Your task to perform on an android device: turn off improve location accuracy Image 0: 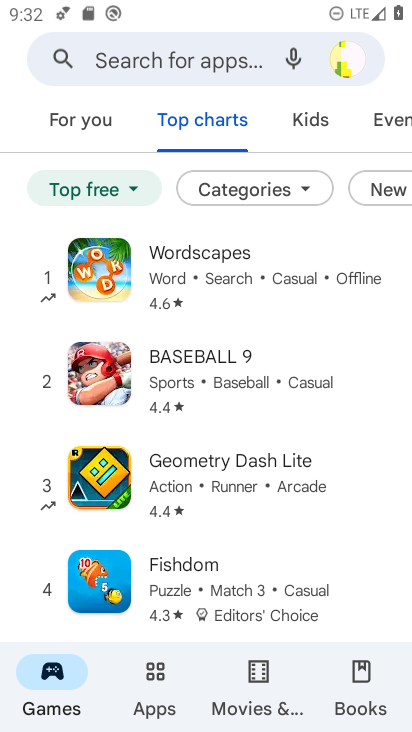
Step 0: press home button
Your task to perform on an android device: turn off improve location accuracy Image 1: 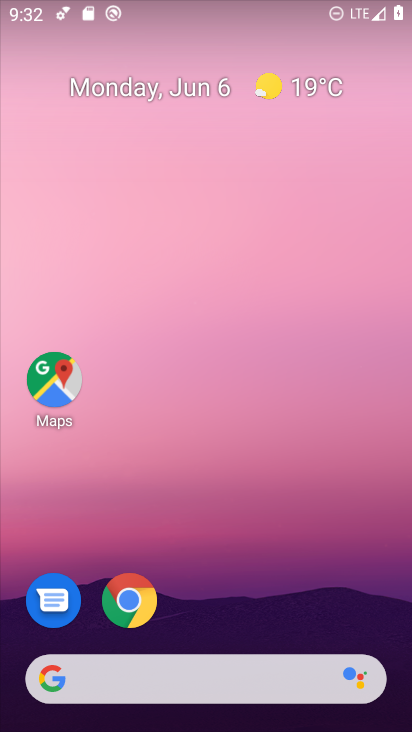
Step 1: drag from (244, 547) to (267, 47)
Your task to perform on an android device: turn off improve location accuracy Image 2: 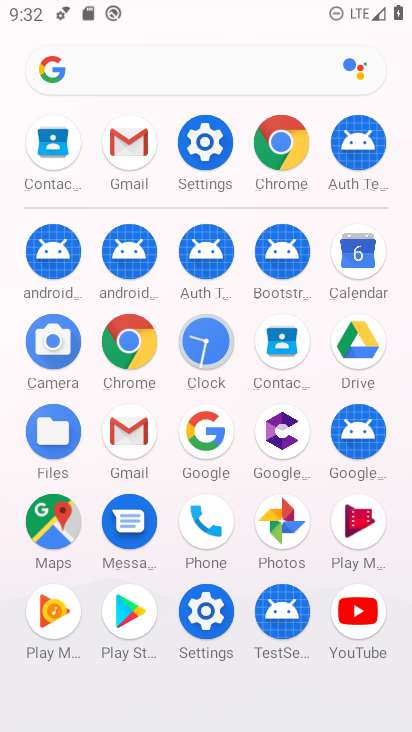
Step 2: click (213, 151)
Your task to perform on an android device: turn off improve location accuracy Image 3: 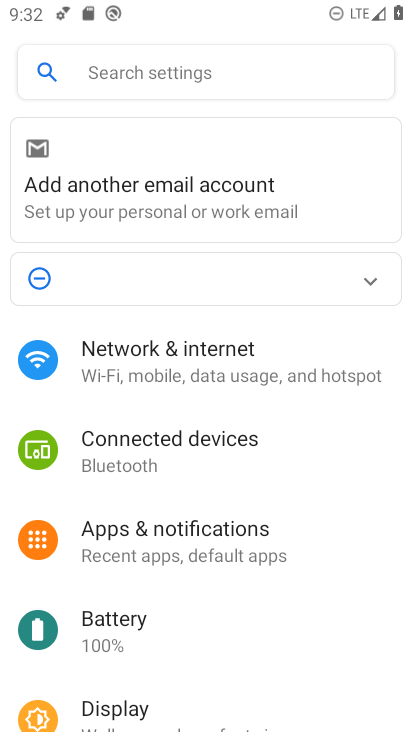
Step 3: drag from (238, 551) to (250, 50)
Your task to perform on an android device: turn off improve location accuracy Image 4: 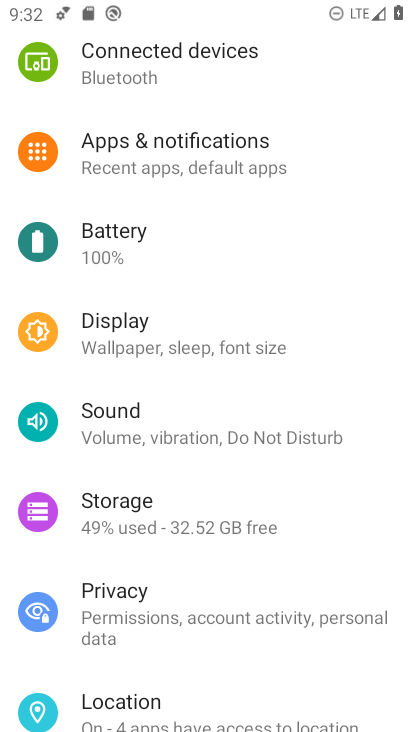
Step 4: click (239, 702)
Your task to perform on an android device: turn off improve location accuracy Image 5: 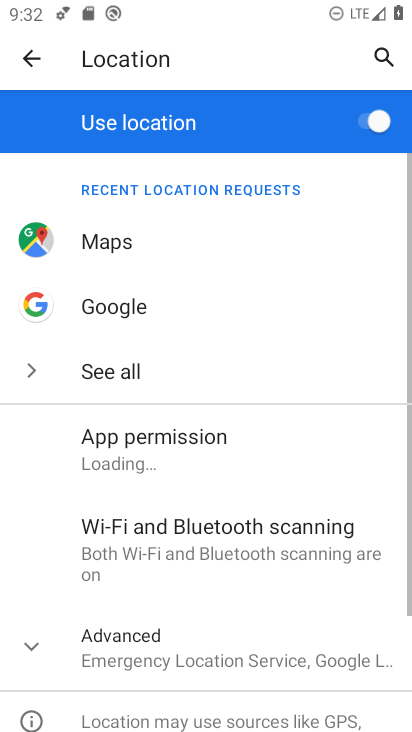
Step 5: drag from (215, 605) to (256, 191)
Your task to perform on an android device: turn off improve location accuracy Image 6: 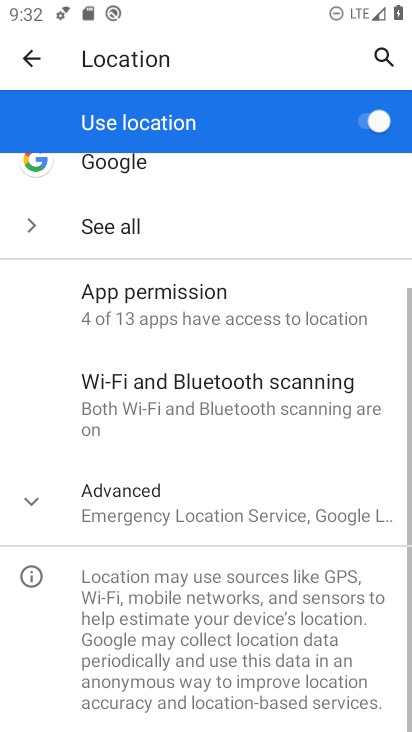
Step 6: click (227, 522)
Your task to perform on an android device: turn off improve location accuracy Image 7: 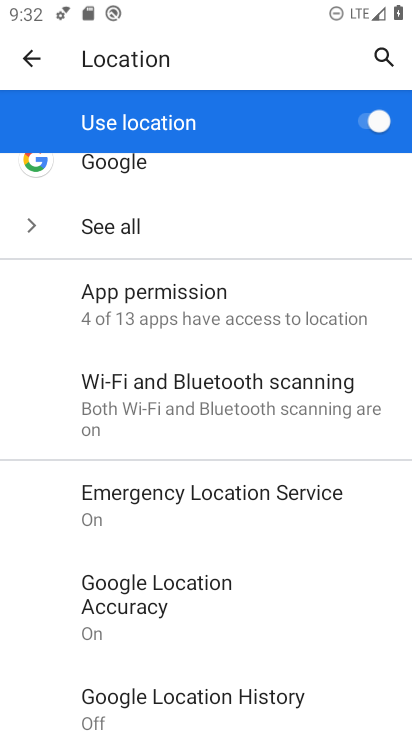
Step 7: click (247, 600)
Your task to perform on an android device: turn off improve location accuracy Image 8: 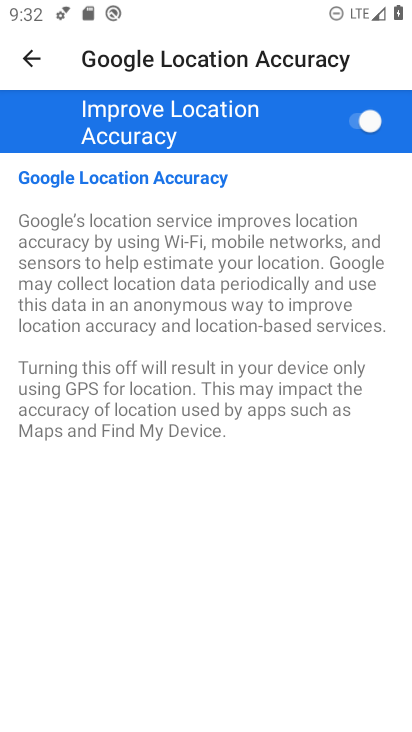
Step 8: click (362, 121)
Your task to perform on an android device: turn off improve location accuracy Image 9: 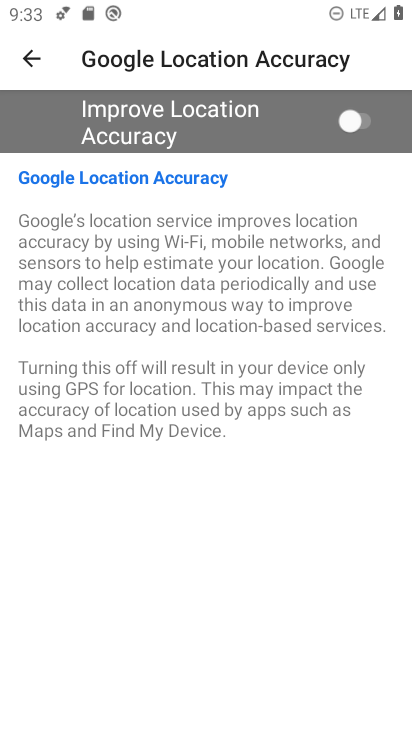
Step 9: task complete